Your task to perform on an android device: toggle translation in the chrome app Image 0: 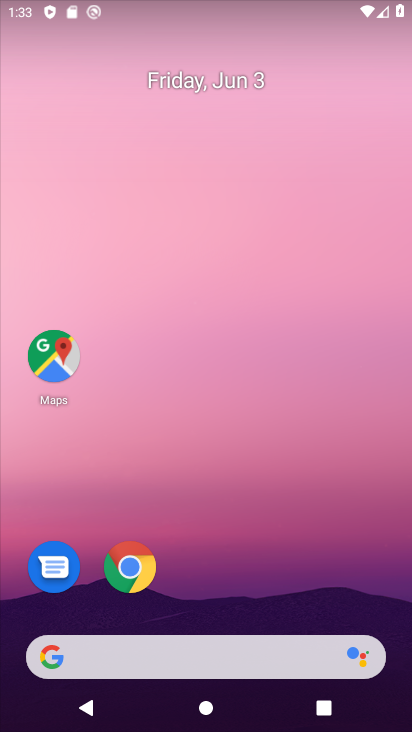
Step 0: click (128, 578)
Your task to perform on an android device: toggle translation in the chrome app Image 1: 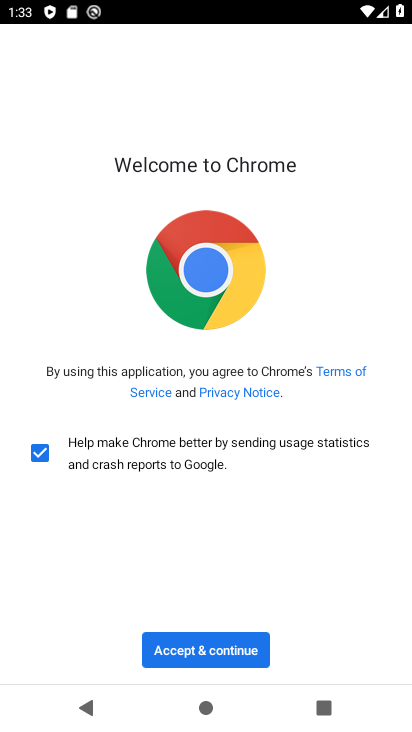
Step 1: click (191, 635)
Your task to perform on an android device: toggle translation in the chrome app Image 2: 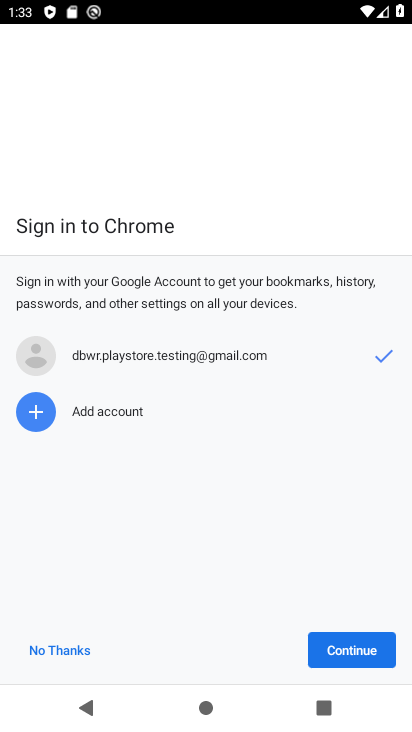
Step 2: click (369, 654)
Your task to perform on an android device: toggle translation in the chrome app Image 3: 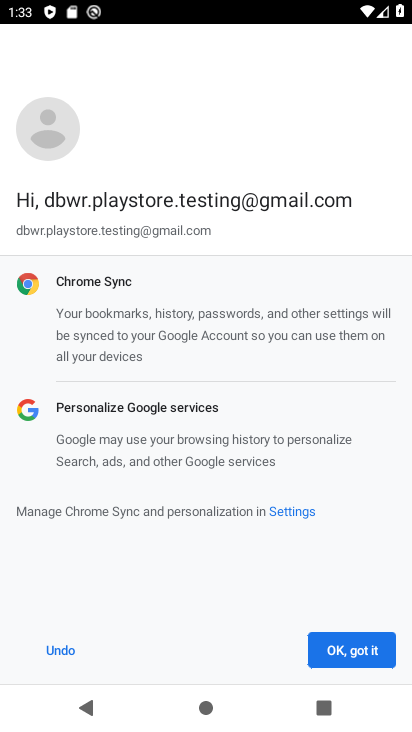
Step 3: click (363, 648)
Your task to perform on an android device: toggle translation in the chrome app Image 4: 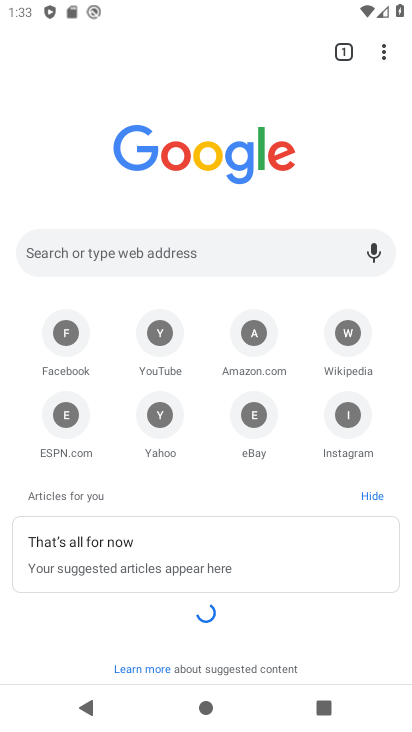
Step 4: drag from (379, 53) to (220, 437)
Your task to perform on an android device: toggle translation in the chrome app Image 5: 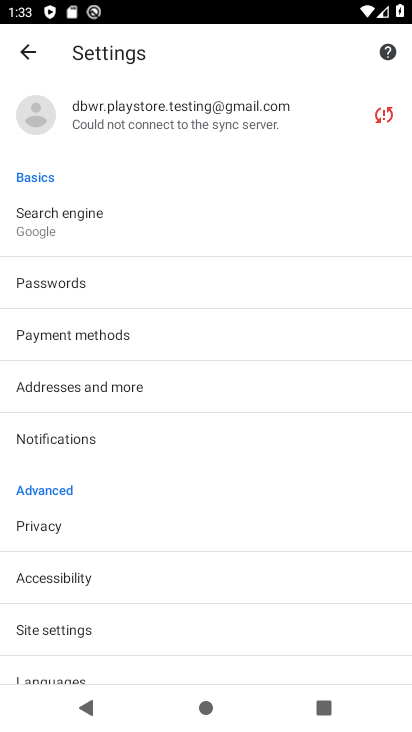
Step 5: drag from (77, 663) to (123, 335)
Your task to perform on an android device: toggle translation in the chrome app Image 6: 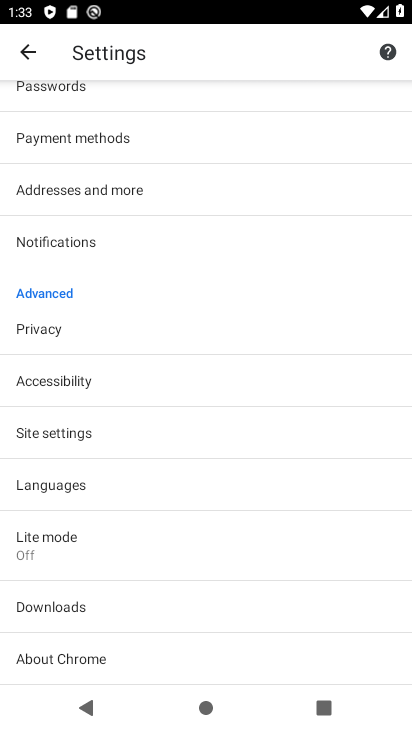
Step 6: click (74, 483)
Your task to perform on an android device: toggle translation in the chrome app Image 7: 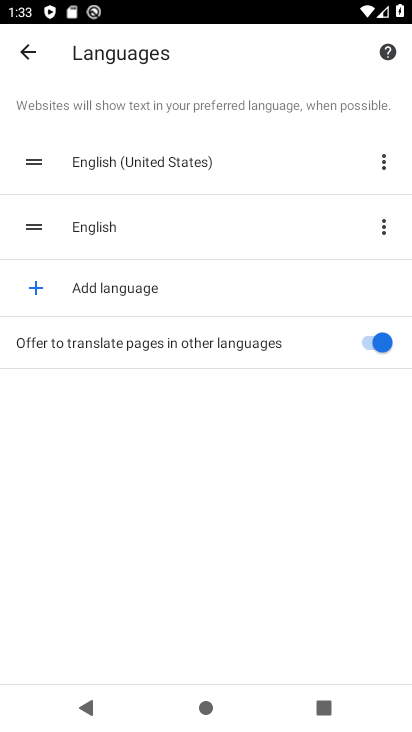
Step 7: click (387, 340)
Your task to perform on an android device: toggle translation in the chrome app Image 8: 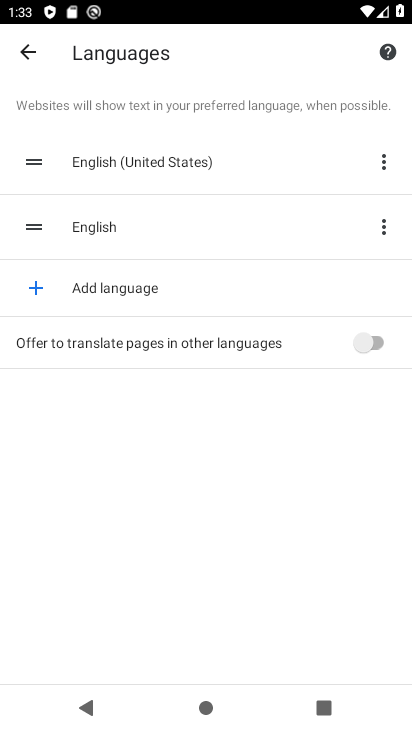
Step 8: task complete